Your task to perform on an android device: turn on priority inbox in the gmail app Image 0: 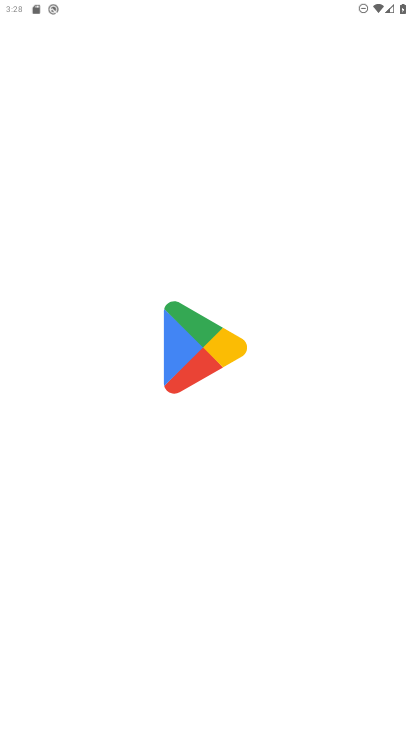
Step 0: press home button
Your task to perform on an android device: turn on priority inbox in the gmail app Image 1: 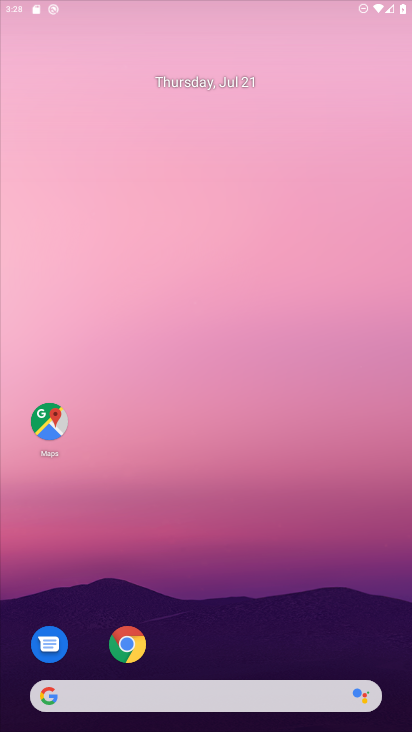
Step 1: drag from (26, 603) to (214, 172)
Your task to perform on an android device: turn on priority inbox in the gmail app Image 2: 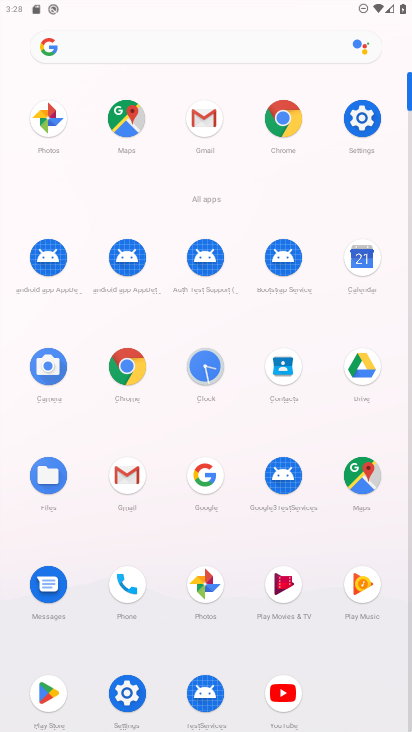
Step 2: click (213, 125)
Your task to perform on an android device: turn on priority inbox in the gmail app Image 3: 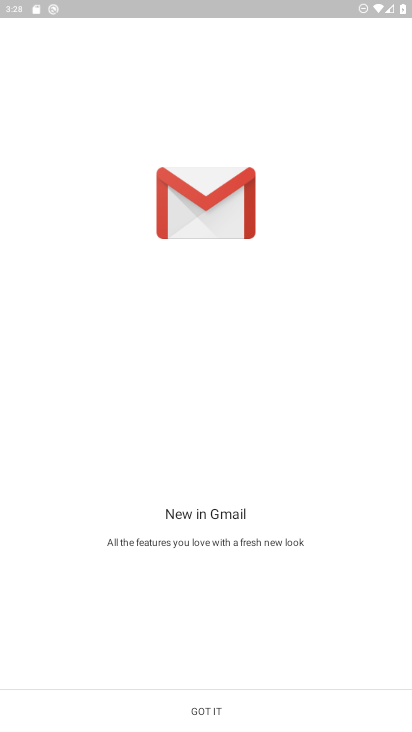
Step 3: click (222, 706)
Your task to perform on an android device: turn on priority inbox in the gmail app Image 4: 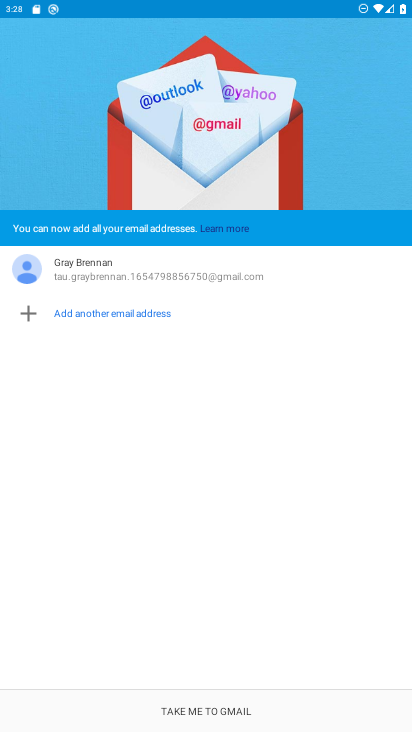
Step 4: click (190, 726)
Your task to perform on an android device: turn on priority inbox in the gmail app Image 5: 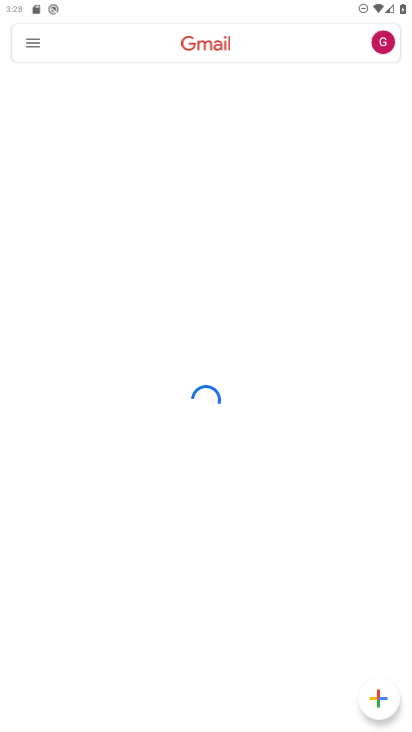
Step 5: click (31, 41)
Your task to perform on an android device: turn on priority inbox in the gmail app Image 6: 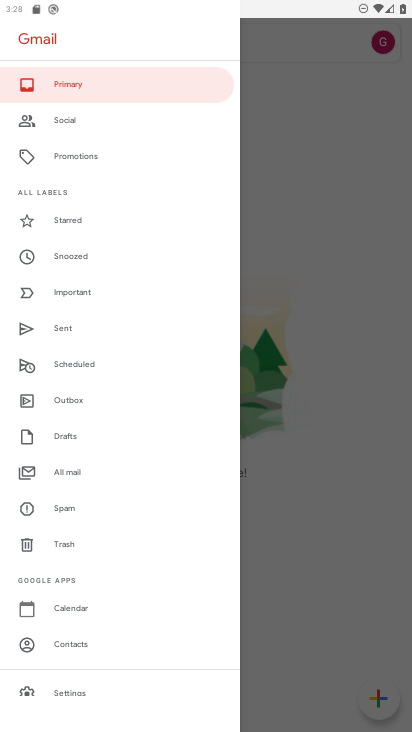
Step 6: click (51, 680)
Your task to perform on an android device: turn on priority inbox in the gmail app Image 7: 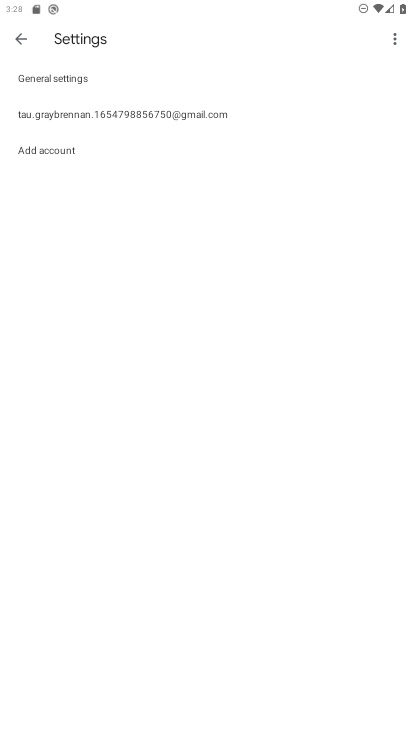
Step 7: click (152, 105)
Your task to perform on an android device: turn on priority inbox in the gmail app Image 8: 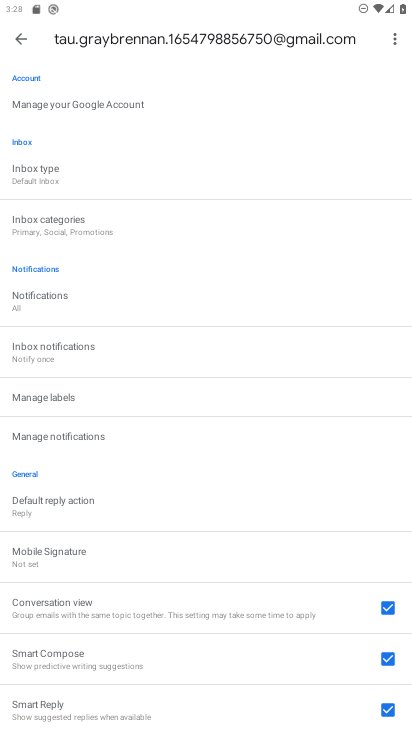
Step 8: click (118, 164)
Your task to perform on an android device: turn on priority inbox in the gmail app Image 9: 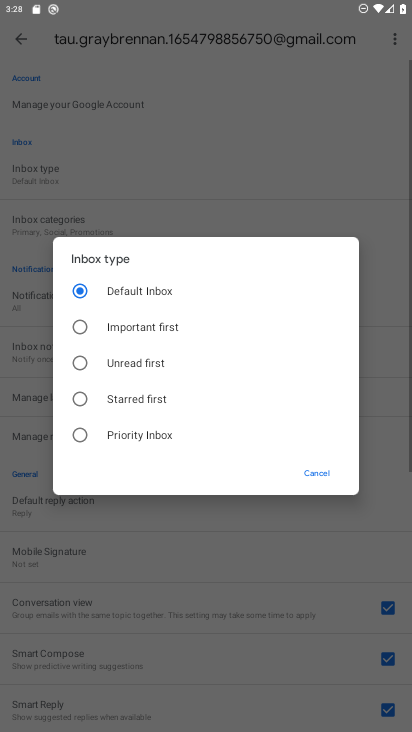
Step 9: click (127, 436)
Your task to perform on an android device: turn on priority inbox in the gmail app Image 10: 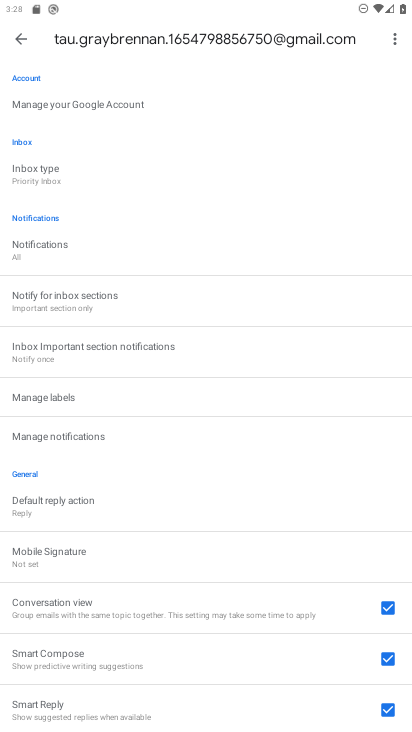
Step 10: task complete